Your task to perform on an android device: Go to accessibility settings Image 0: 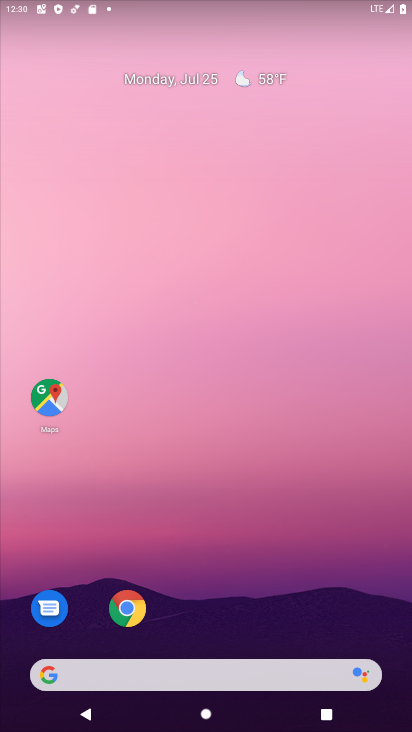
Step 0: drag from (209, 673) to (273, 156)
Your task to perform on an android device: Go to accessibility settings Image 1: 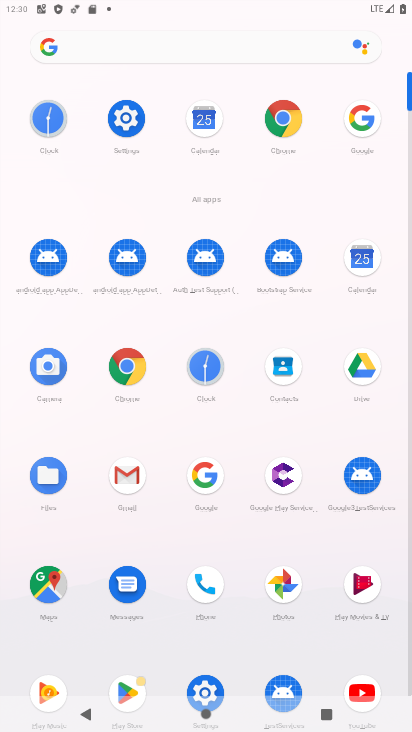
Step 1: click (126, 113)
Your task to perform on an android device: Go to accessibility settings Image 2: 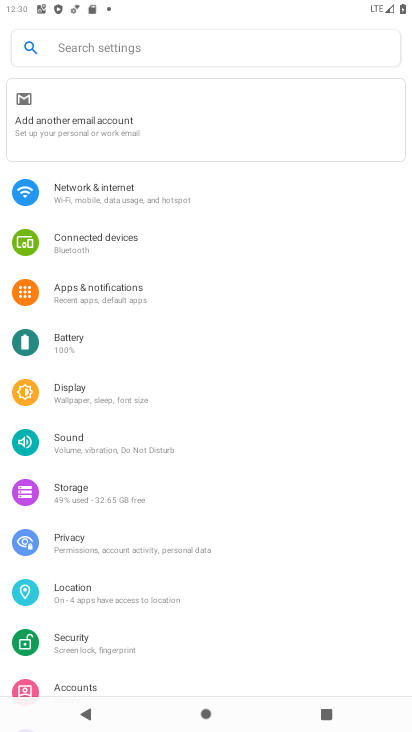
Step 2: drag from (124, 569) to (116, 406)
Your task to perform on an android device: Go to accessibility settings Image 3: 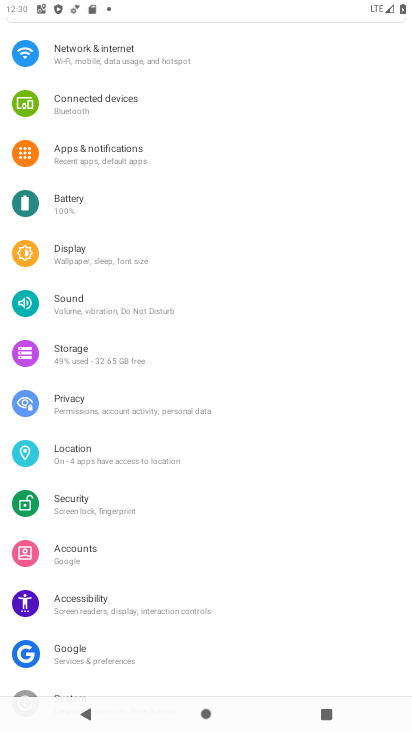
Step 3: click (118, 610)
Your task to perform on an android device: Go to accessibility settings Image 4: 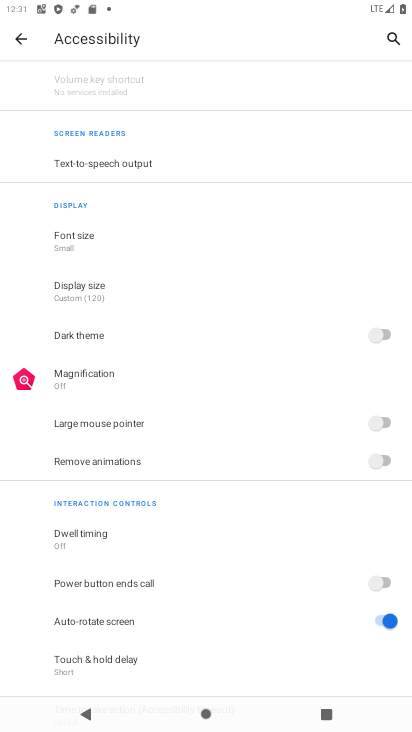
Step 4: task complete